Your task to perform on an android device: What's the weather today? Image 0: 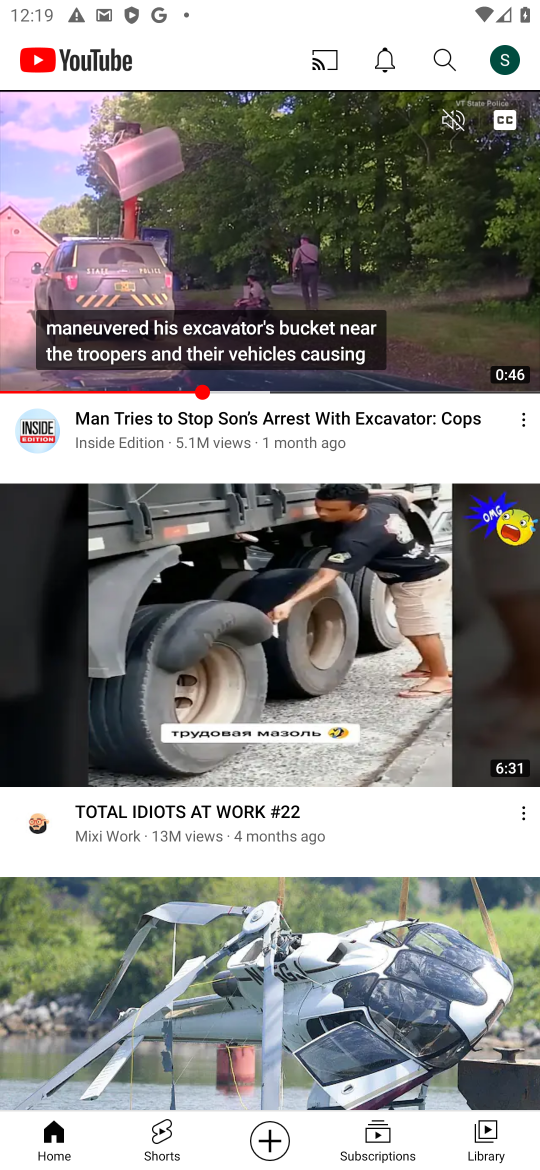
Step 0: press home button
Your task to perform on an android device: What's the weather today? Image 1: 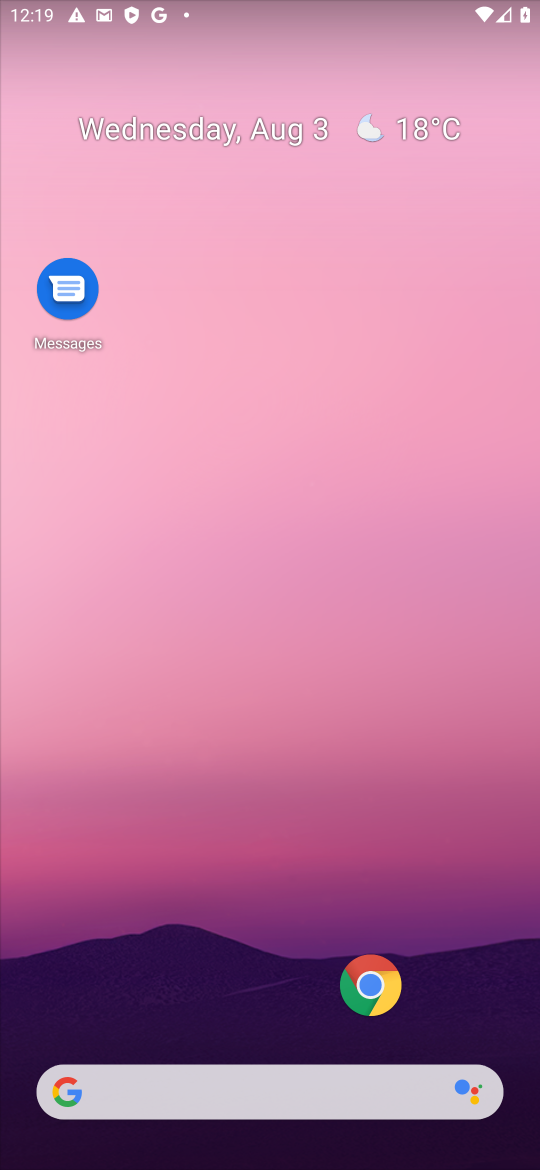
Step 1: click (327, 1086)
Your task to perform on an android device: What's the weather today? Image 2: 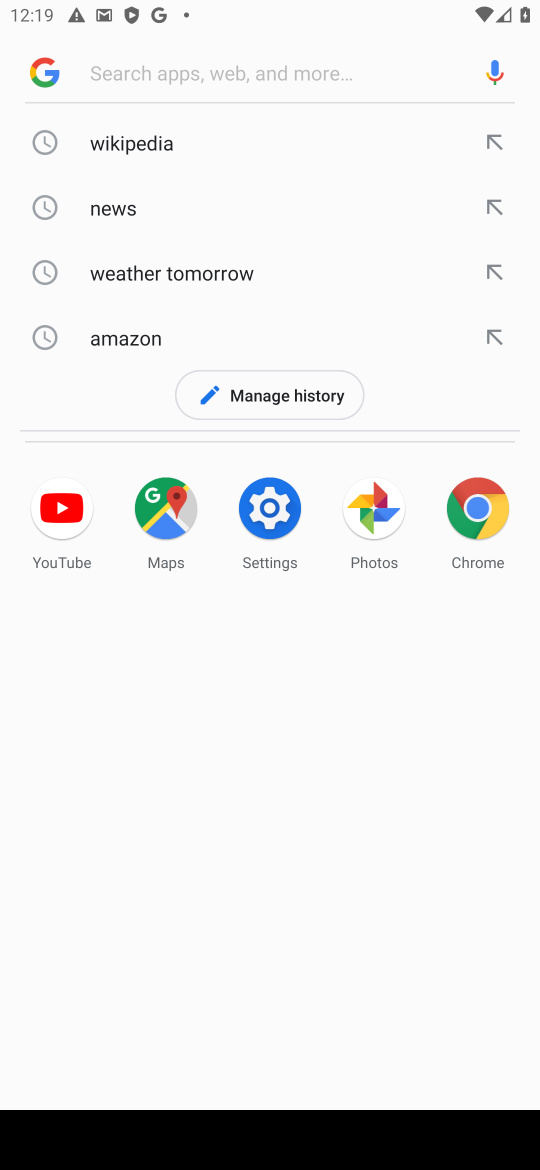
Step 2: type "weather"
Your task to perform on an android device: What's the weather today? Image 3: 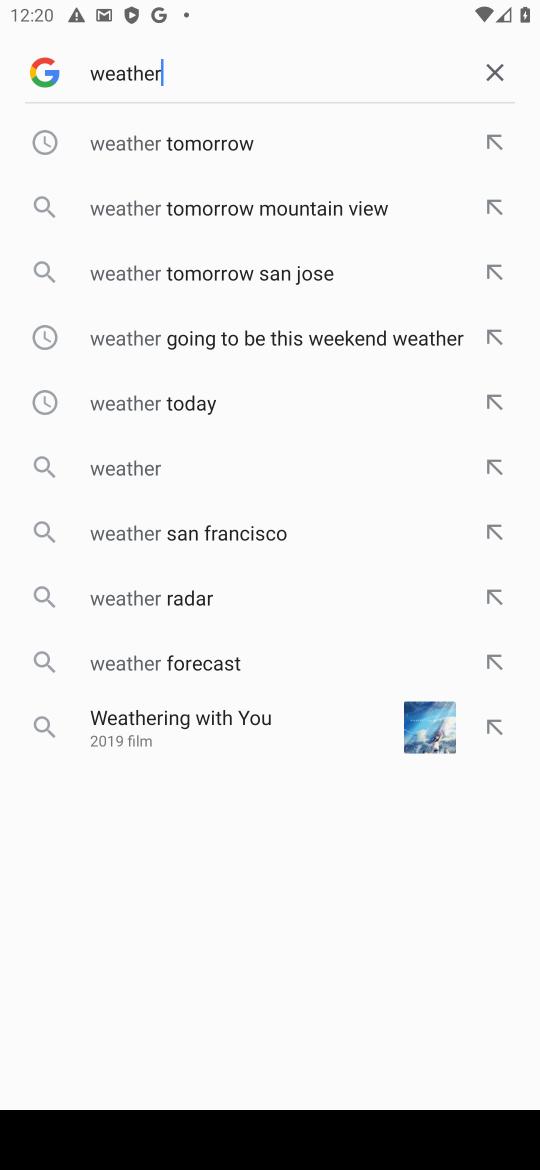
Step 3: click (171, 164)
Your task to perform on an android device: What's the weather today? Image 4: 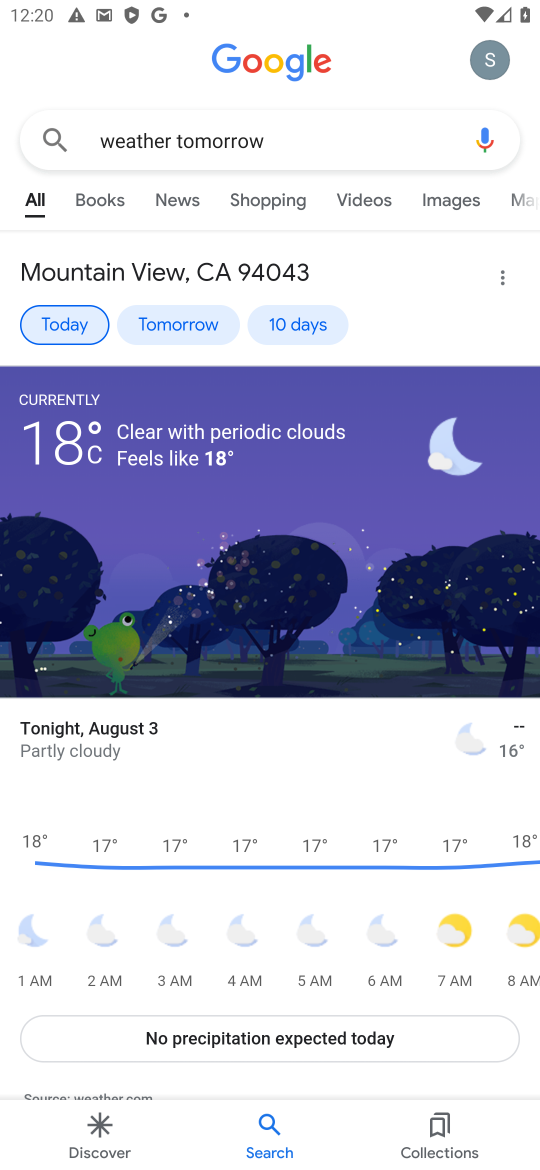
Step 4: task complete